Your task to perform on an android device: turn off priority inbox in the gmail app Image 0: 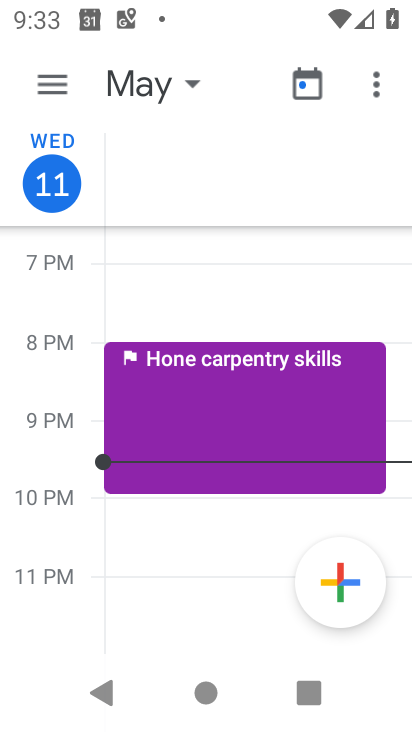
Step 0: drag from (337, 546) to (332, 328)
Your task to perform on an android device: turn off priority inbox in the gmail app Image 1: 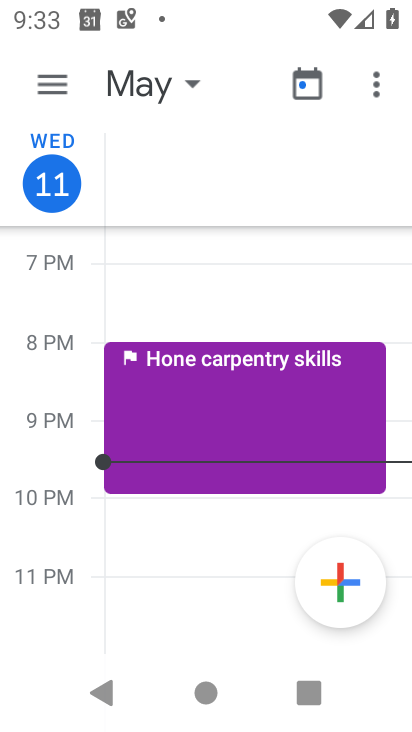
Step 1: press home button
Your task to perform on an android device: turn off priority inbox in the gmail app Image 2: 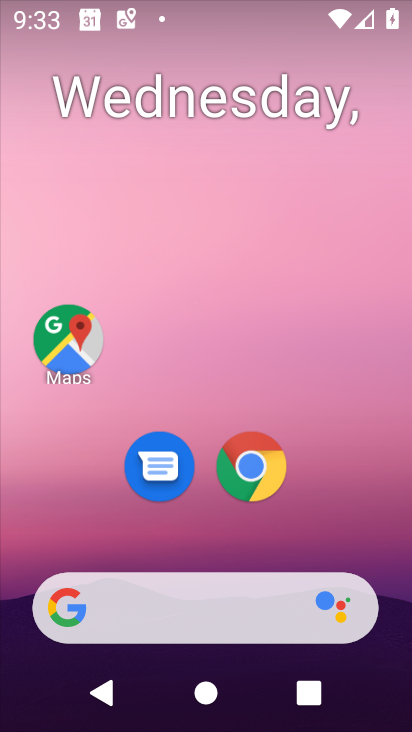
Step 2: drag from (331, 535) to (344, 296)
Your task to perform on an android device: turn off priority inbox in the gmail app Image 3: 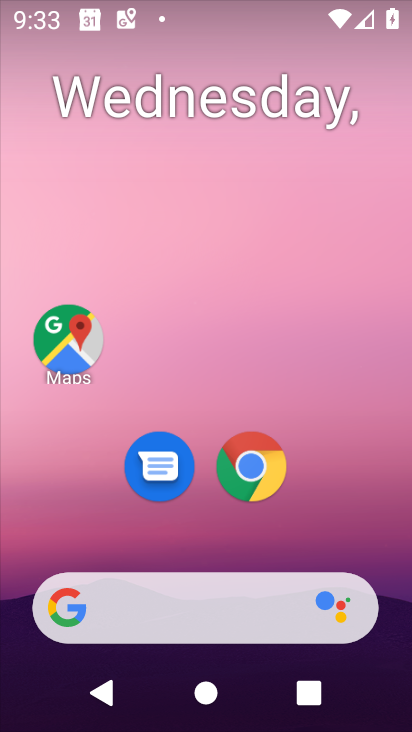
Step 3: drag from (204, 589) to (237, 110)
Your task to perform on an android device: turn off priority inbox in the gmail app Image 4: 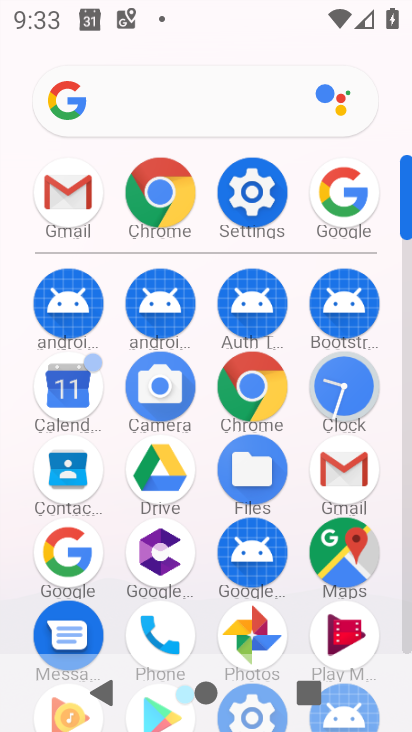
Step 4: click (67, 195)
Your task to perform on an android device: turn off priority inbox in the gmail app Image 5: 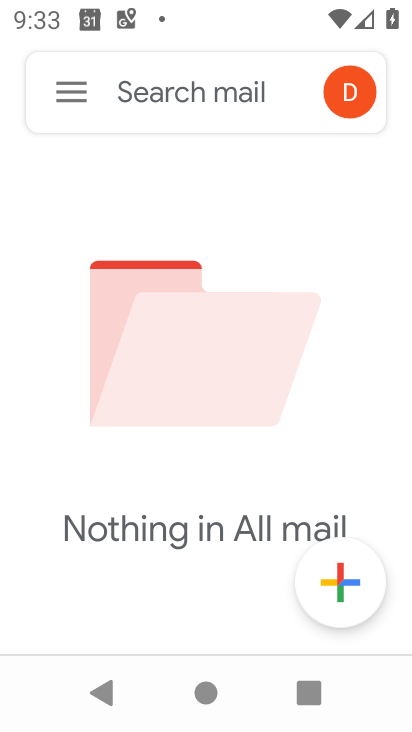
Step 5: click (72, 87)
Your task to perform on an android device: turn off priority inbox in the gmail app Image 6: 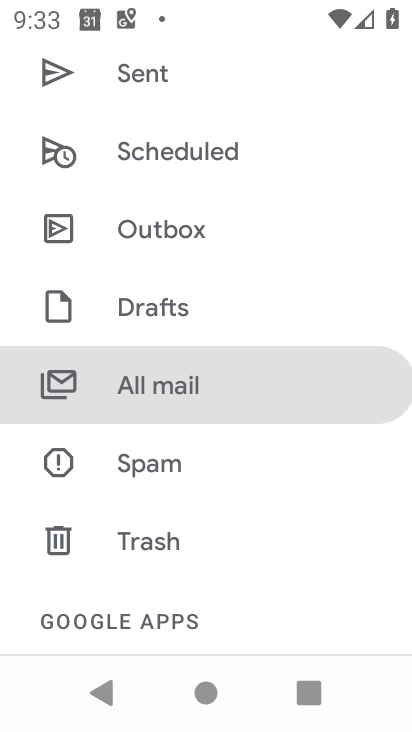
Step 6: drag from (229, 606) to (256, 120)
Your task to perform on an android device: turn off priority inbox in the gmail app Image 7: 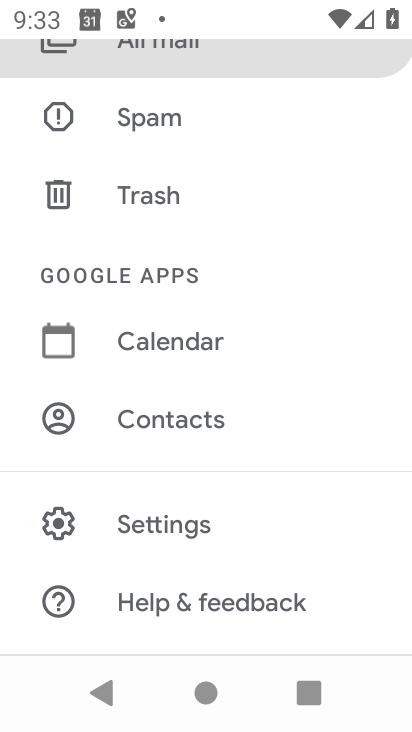
Step 7: click (177, 531)
Your task to perform on an android device: turn off priority inbox in the gmail app Image 8: 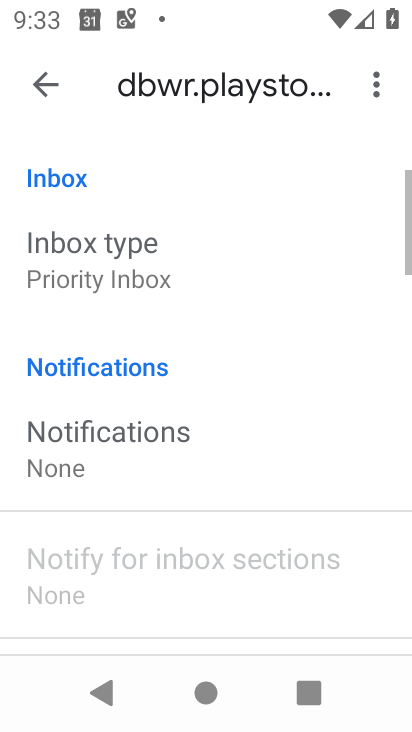
Step 8: click (102, 251)
Your task to perform on an android device: turn off priority inbox in the gmail app Image 9: 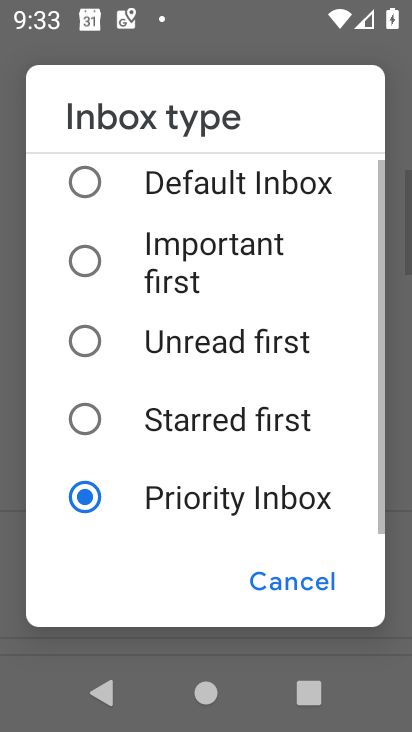
Step 9: click (153, 183)
Your task to perform on an android device: turn off priority inbox in the gmail app Image 10: 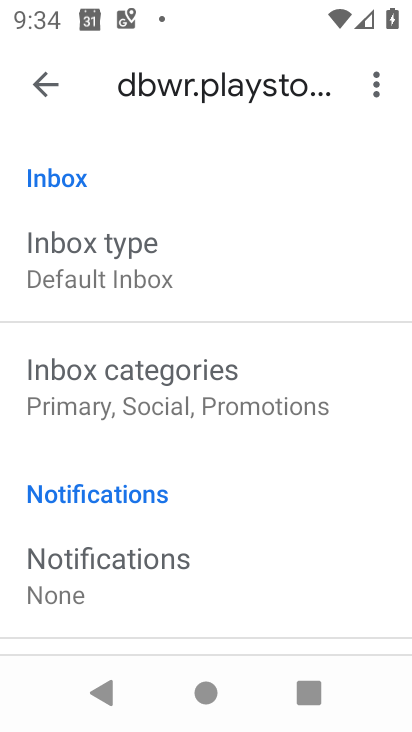
Step 10: task complete